Your task to perform on an android device: Go to ESPN.com Image 0: 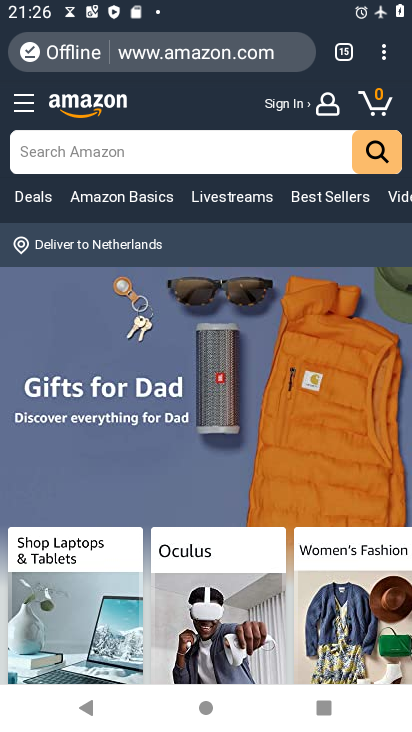
Step 0: click (381, 54)
Your task to perform on an android device: Go to ESPN.com Image 1: 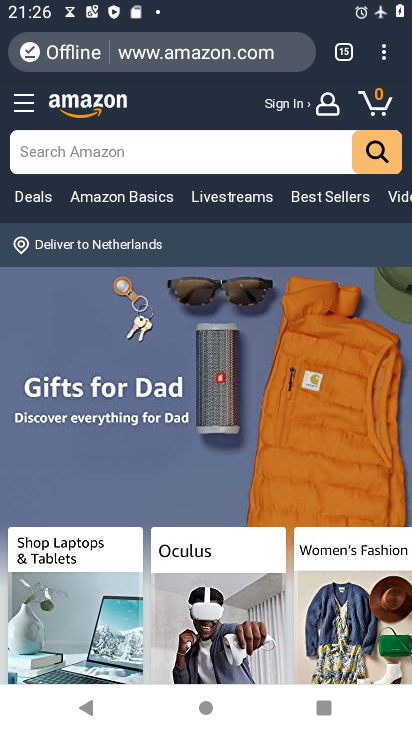
Step 1: click (384, 58)
Your task to perform on an android device: Go to ESPN.com Image 2: 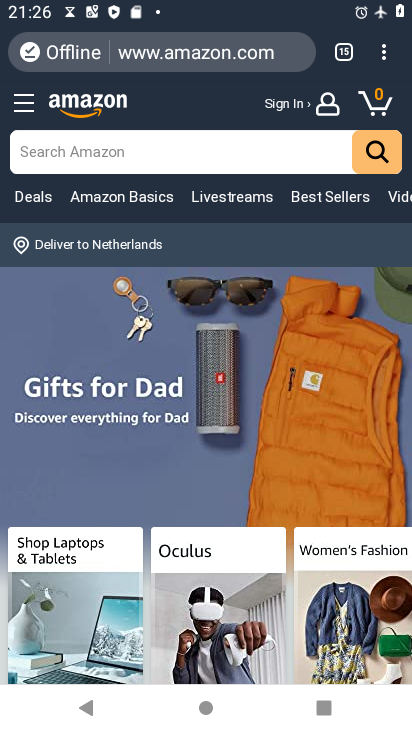
Step 2: click (383, 55)
Your task to perform on an android device: Go to ESPN.com Image 3: 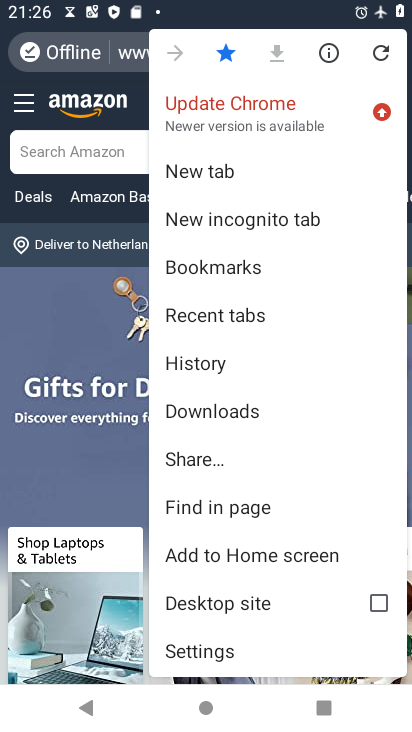
Step 3: click (211, 166)
Your task to perform on an android device: Go to ESPN.com Image 4: 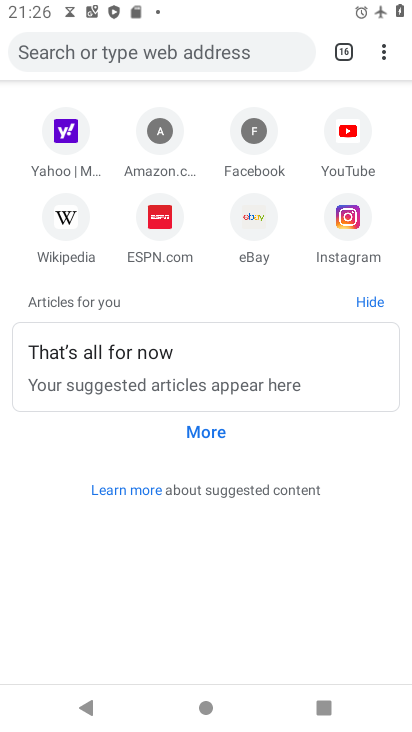
Step 4: click (153, 211)
Your task to perform on an android device: Go to ESPN.com Image 5: 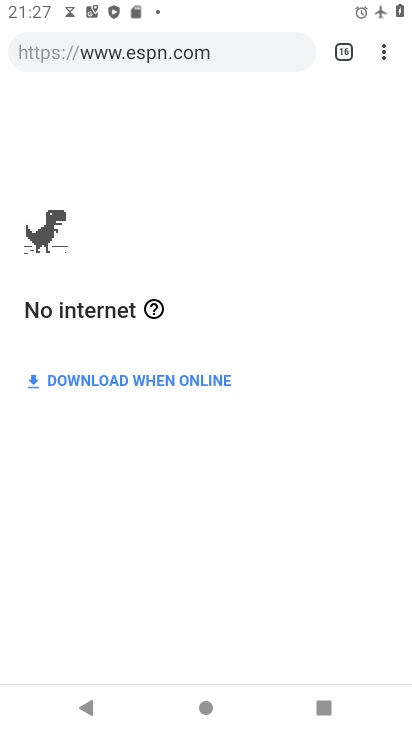
Step 5: task complete